Your task to perform on an android device: turn off airplane mode Image 0: 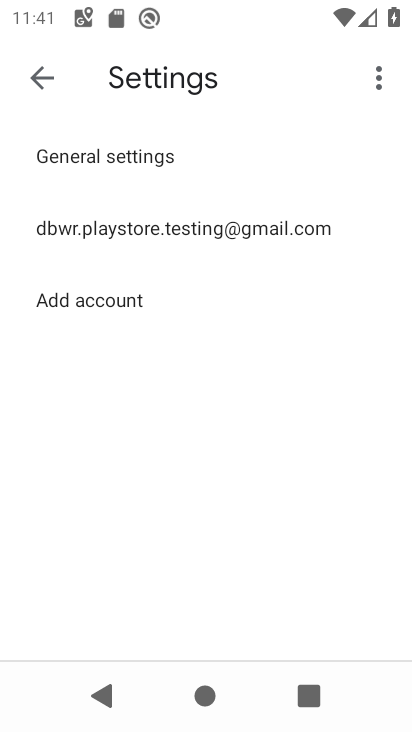
Step 0: press home button
Your task to perform on an android device: turn off airplane mode Image 1: 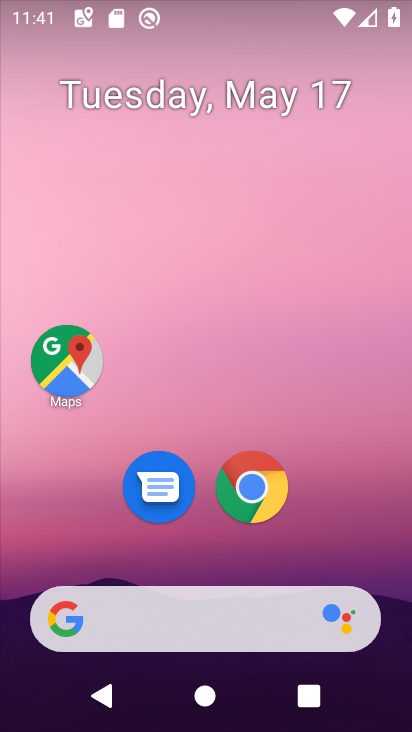
Step 1: drag from (392, 569) to (325, 226)
Your task to perform on an android device: turn off airplane mode Image 2: 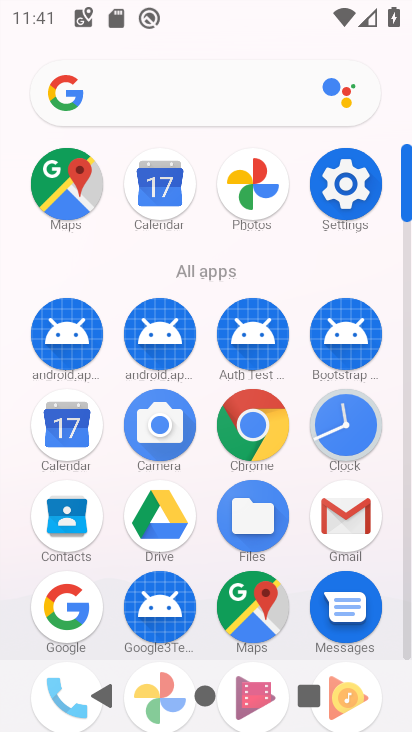
Step 2: click (345, 179)
Your task to perform on an android device: turn off airplane mode Image 3: 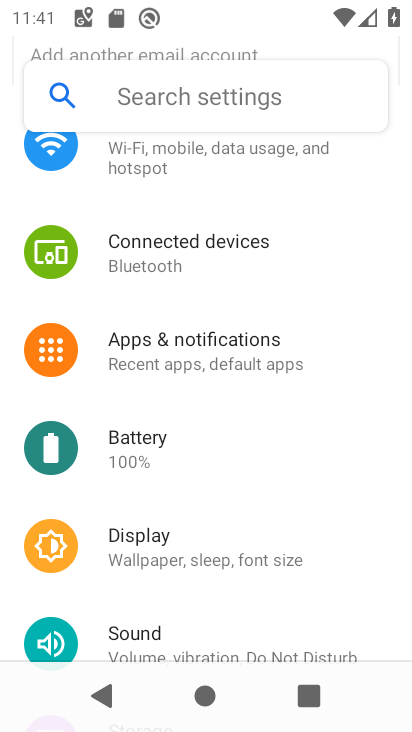
Step 3: click (319, 204)
Your task to perform on an android device: turn off airplane mode Image 4: 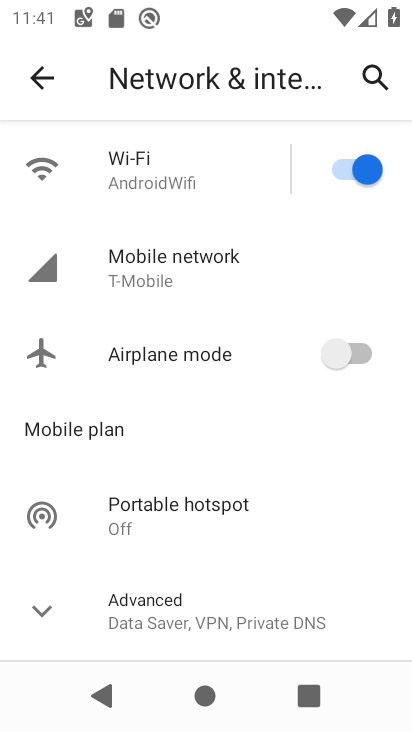
Step 4: task complete